Your task to perform on an android device: turn notification dots on Image 0: 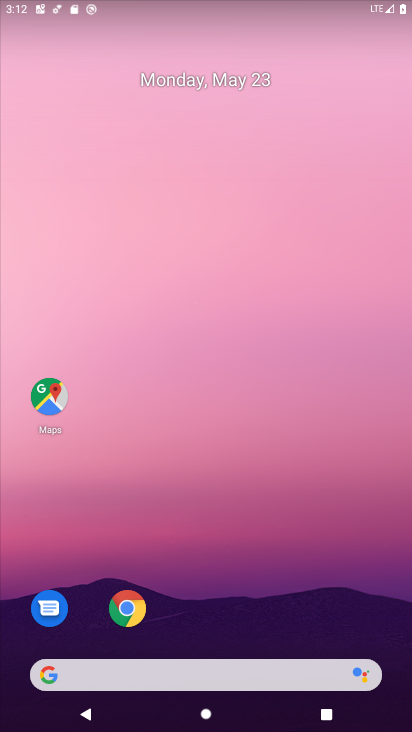
Step 0: drag from (222, 639) to (140, 46)
Your task to perform on an android device: turn notification dots on Image 1: 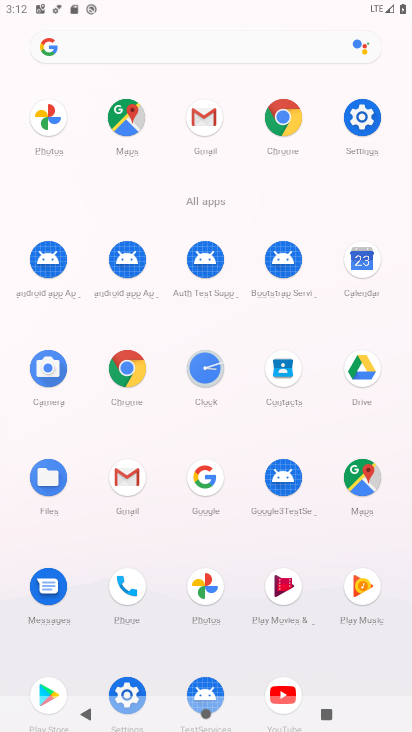
Step 1: click (361, 114)
Your task to perform on an android device: turn notification dots on Image 2: 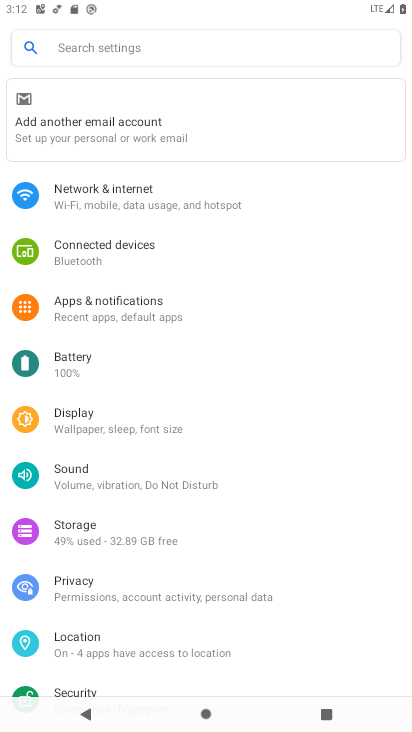
Step 2: click (148, 306)
Your task to perform on an android device: turn notification dots on Image 3: 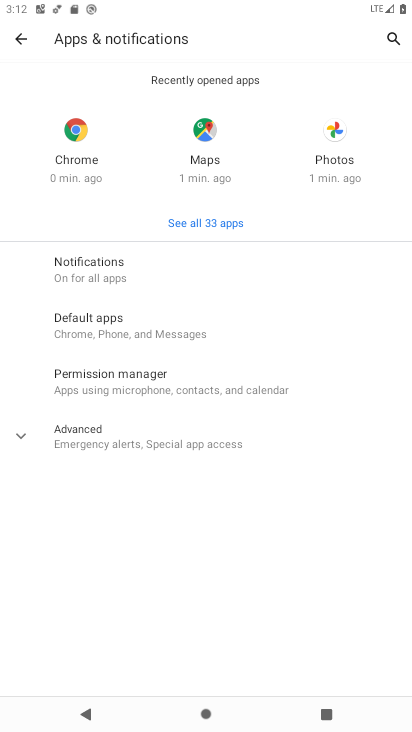
Step 3: click (125, 272)
Your task to perform on an android device: turn notification dots on Image 4: 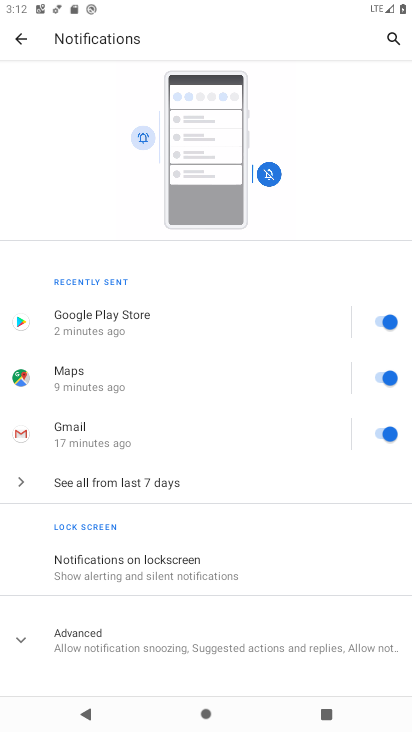
Step 4: click (227, 637)
Your task to perform on an android device: turn notification dots on Image 5: 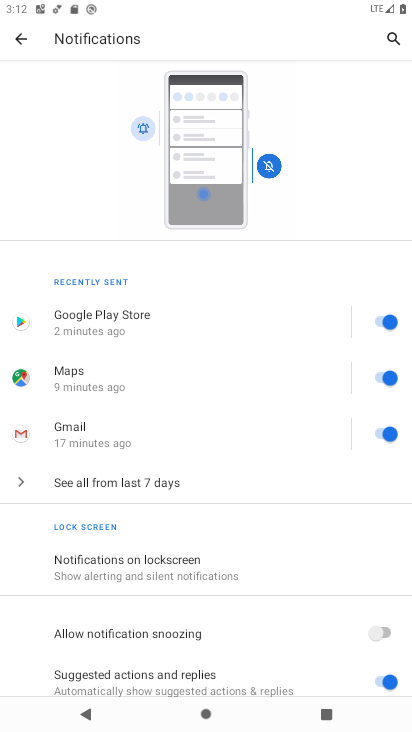
Step 5: task complete